Your task to perform on an android device: Search for flights from Boston to Sydney Image 0: 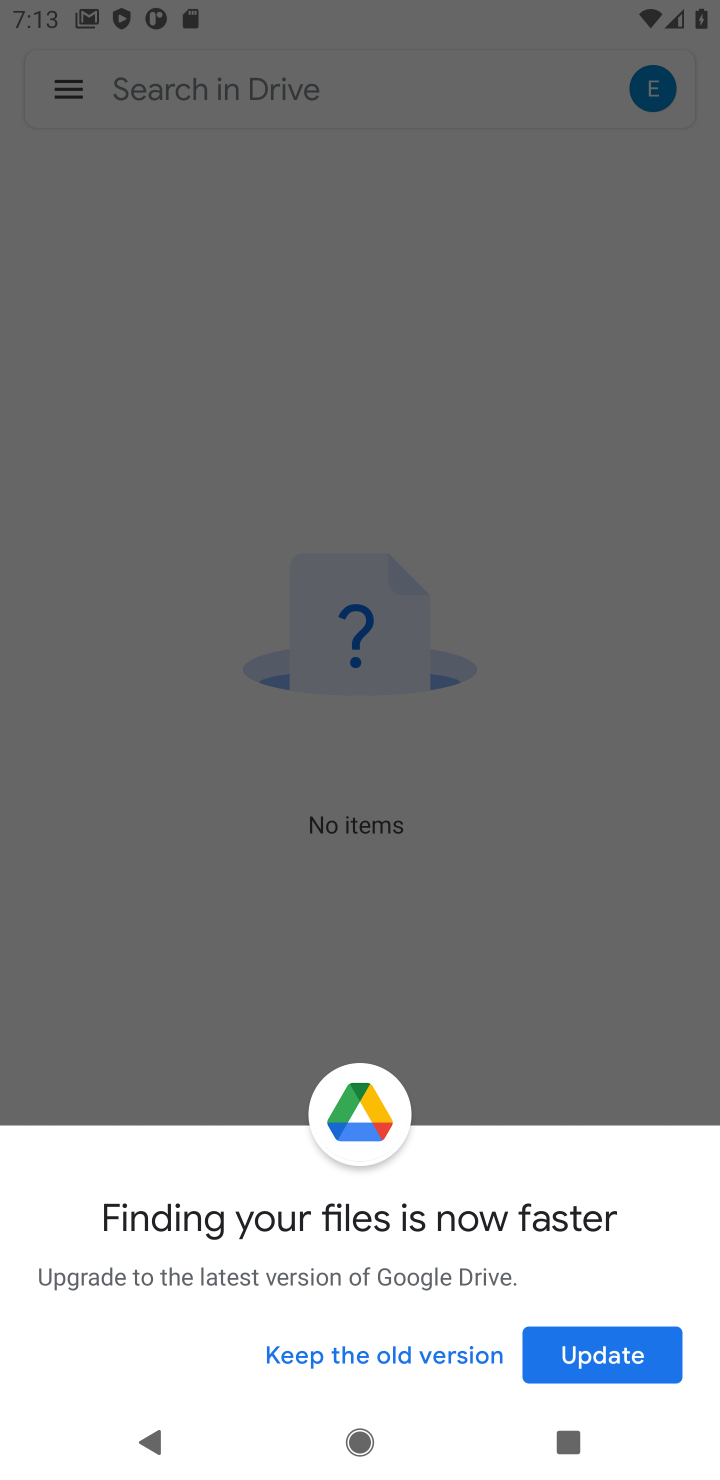
Step 0: click (284, 791)
Your task to perform on an android device: Search for flights from Boston to Sydney Image 1: 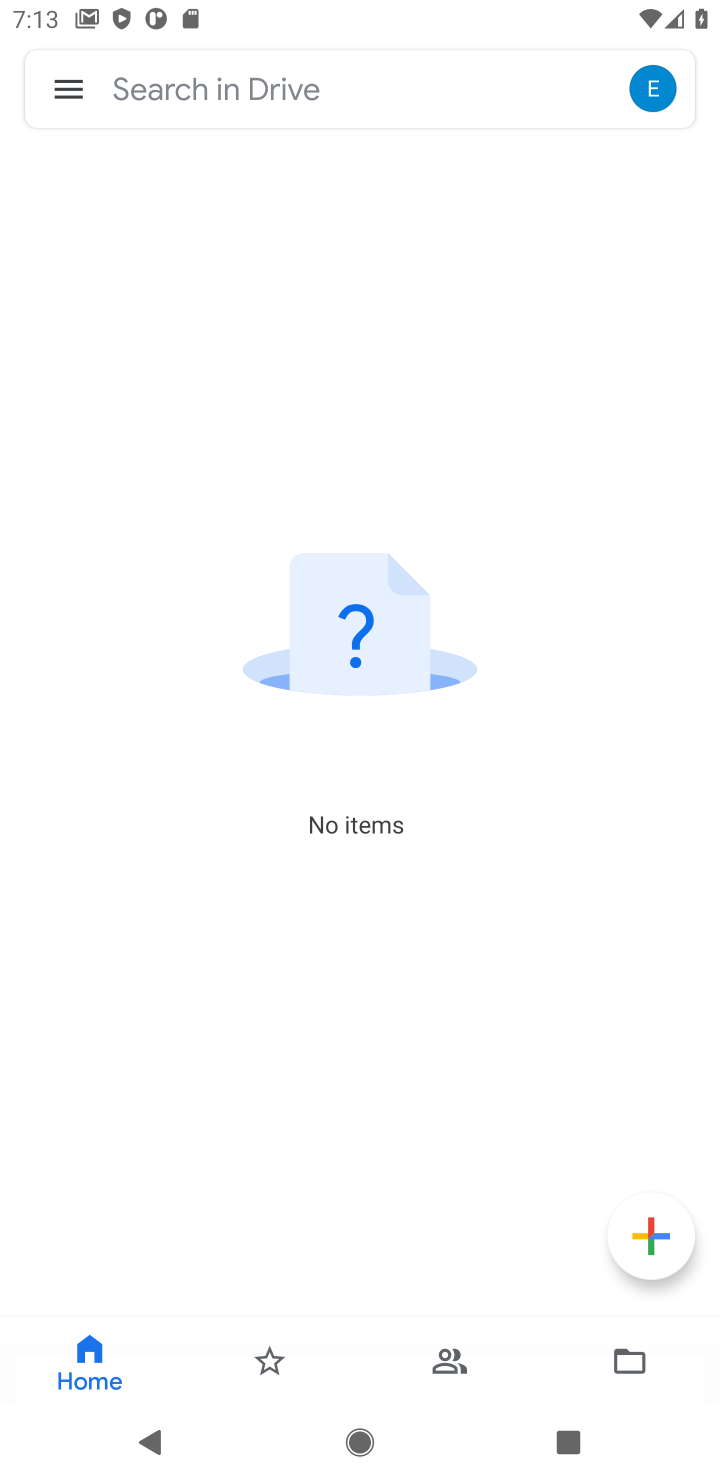
Step 1: press home button
Your task to perform on an android device: Search for flights from Boston to Sydney Image 2: 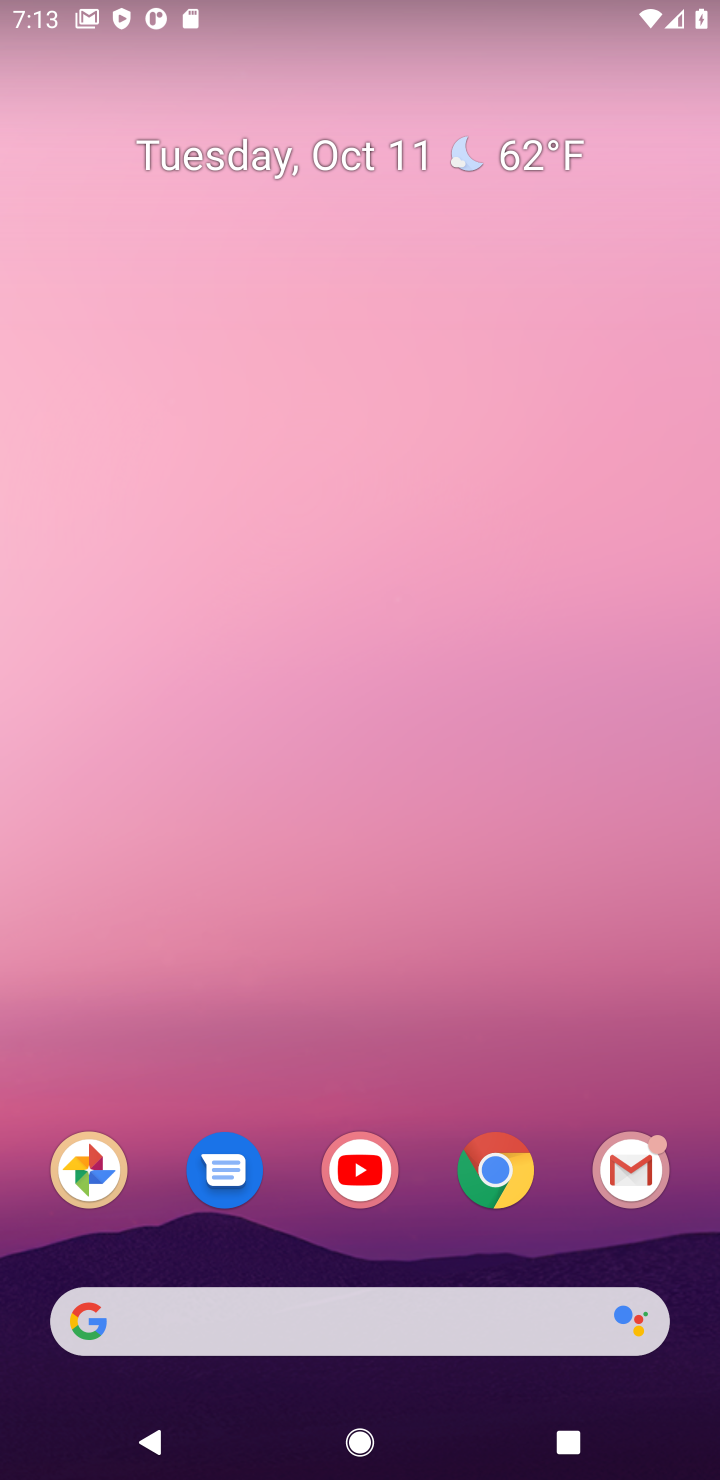
Step 2: drag from (332, 1259) to (342, 3)
Your task to perform on an android device: Search for flights from Boston to Sydney Image 3: 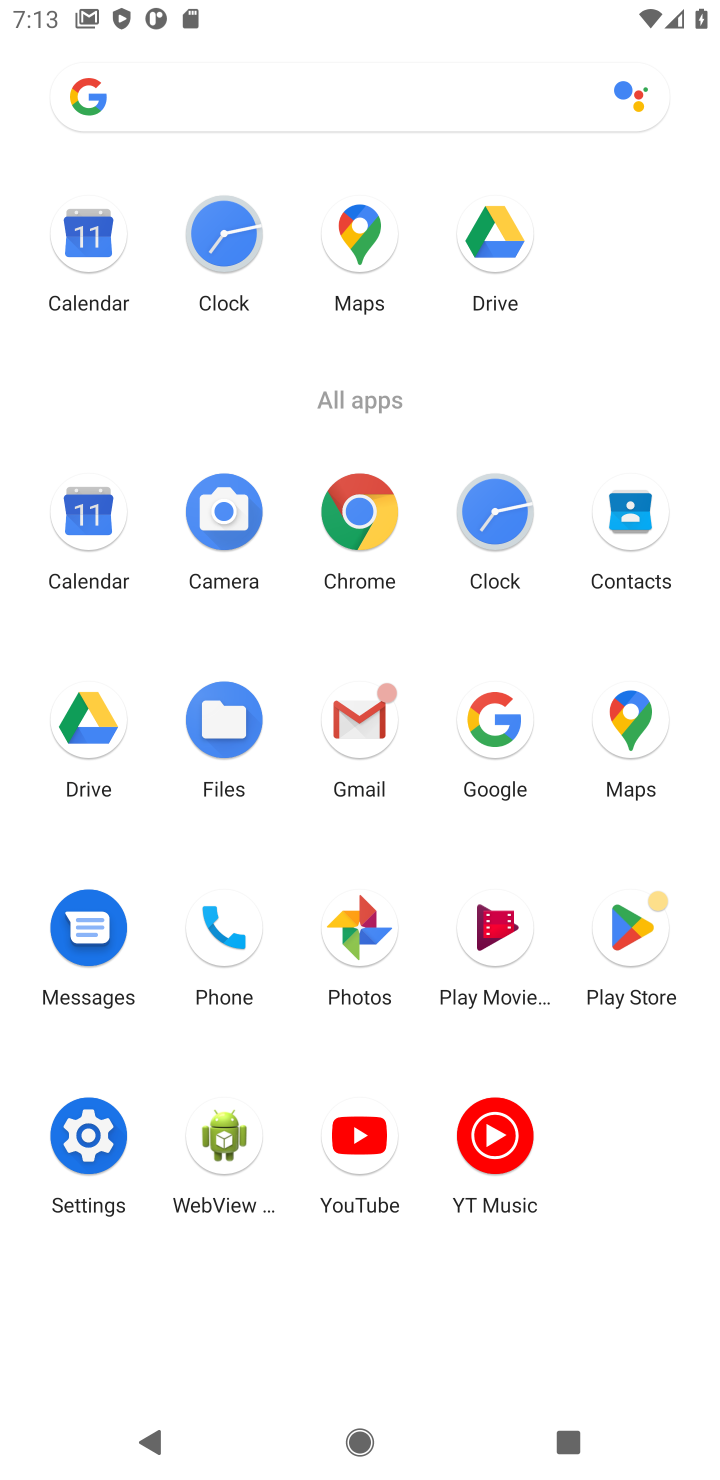
Step 3: click (498, 705)
Your task to perform on an android device: Search for flights from Boston to Sydney Image 4: 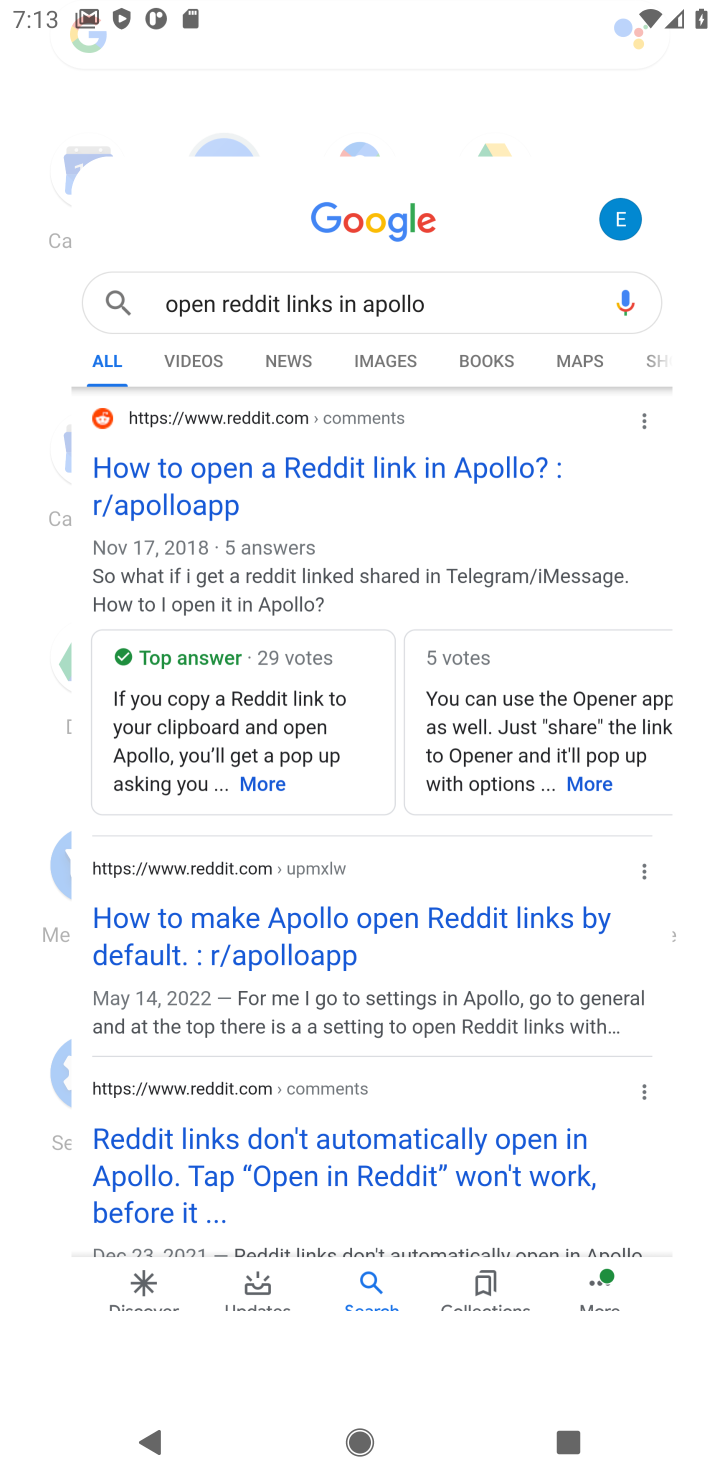
Step 4: click (409, 291)
Your task to perform on an android device: Search for flights from Boston to Sydney Image 5: 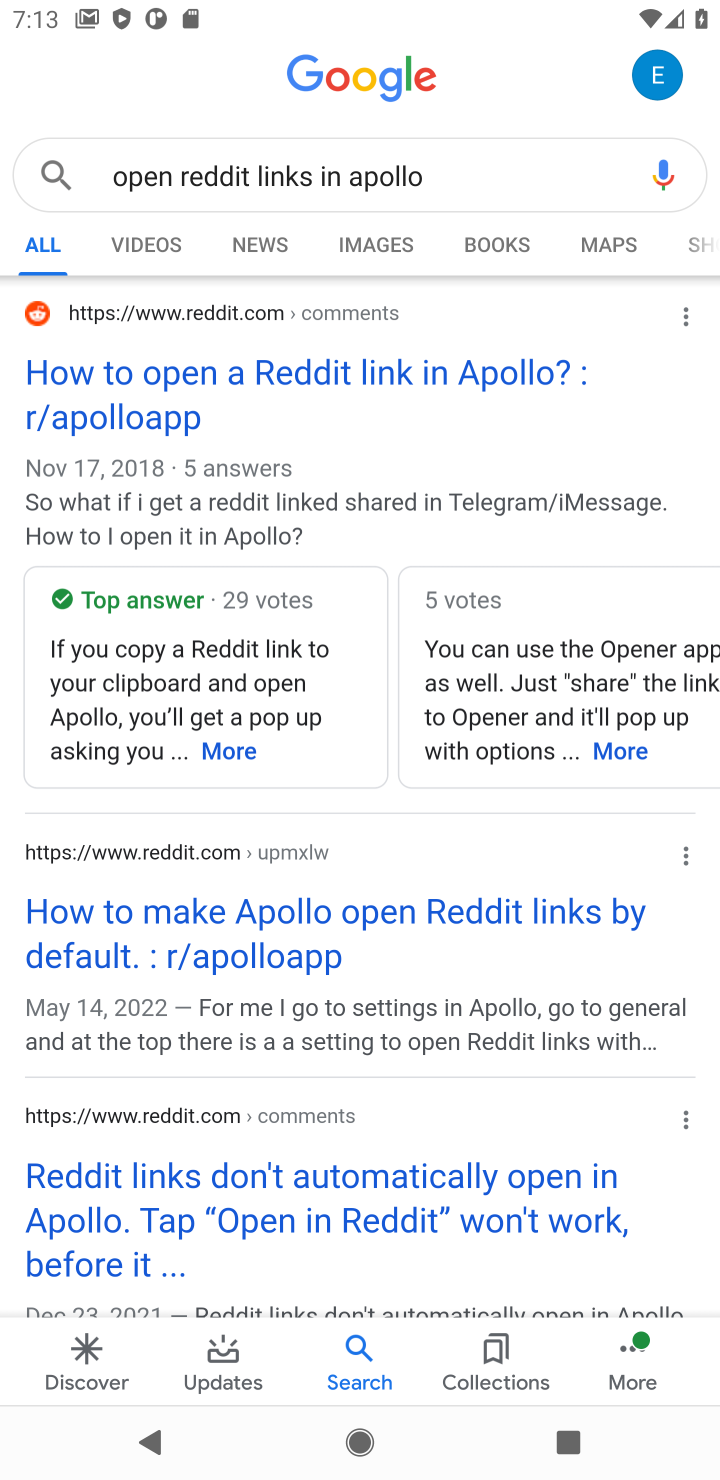
Step 5: click (371, 152)
Your task to perform on an android device: Search for flights from Boston to Sydney Image 6: 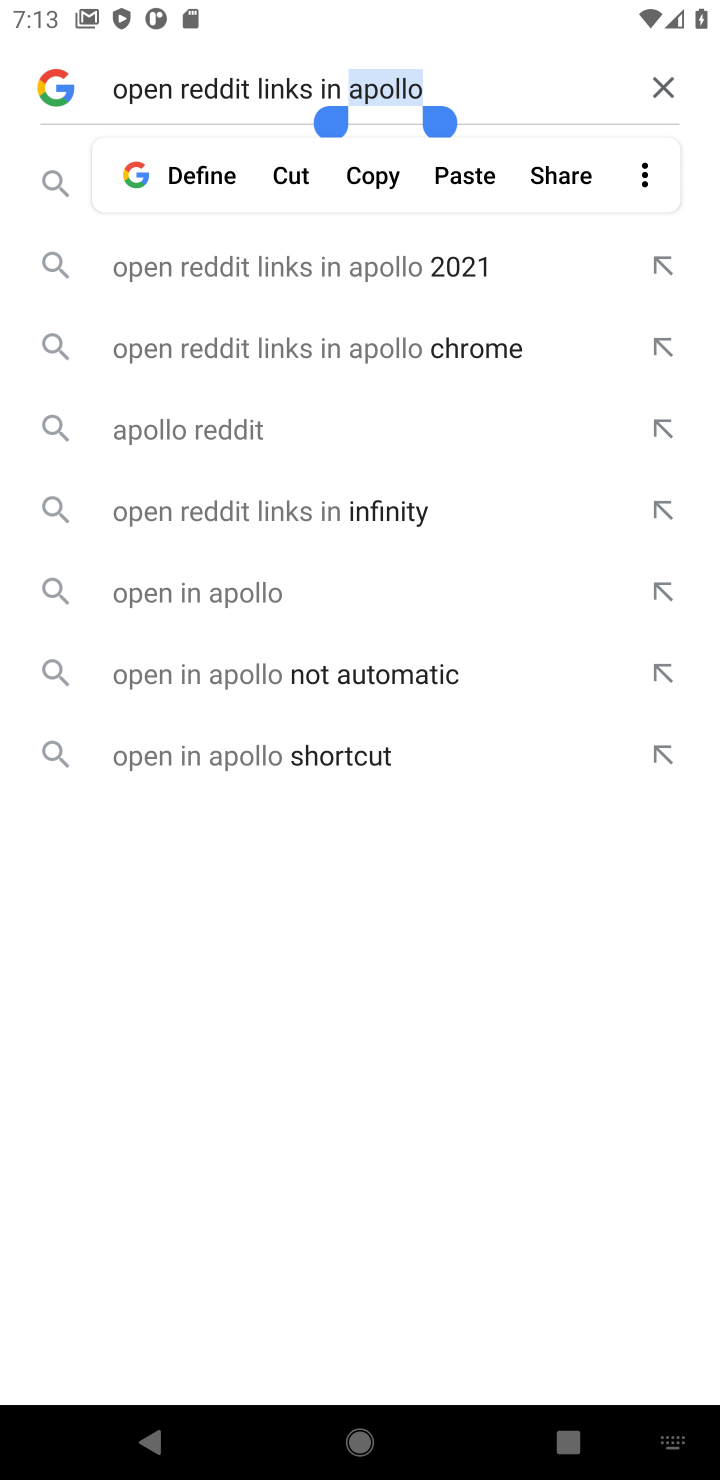
Step 6: click (653, 80)
Your task to perform on an android device: Search for flights from Boston to Sydney Image 7: 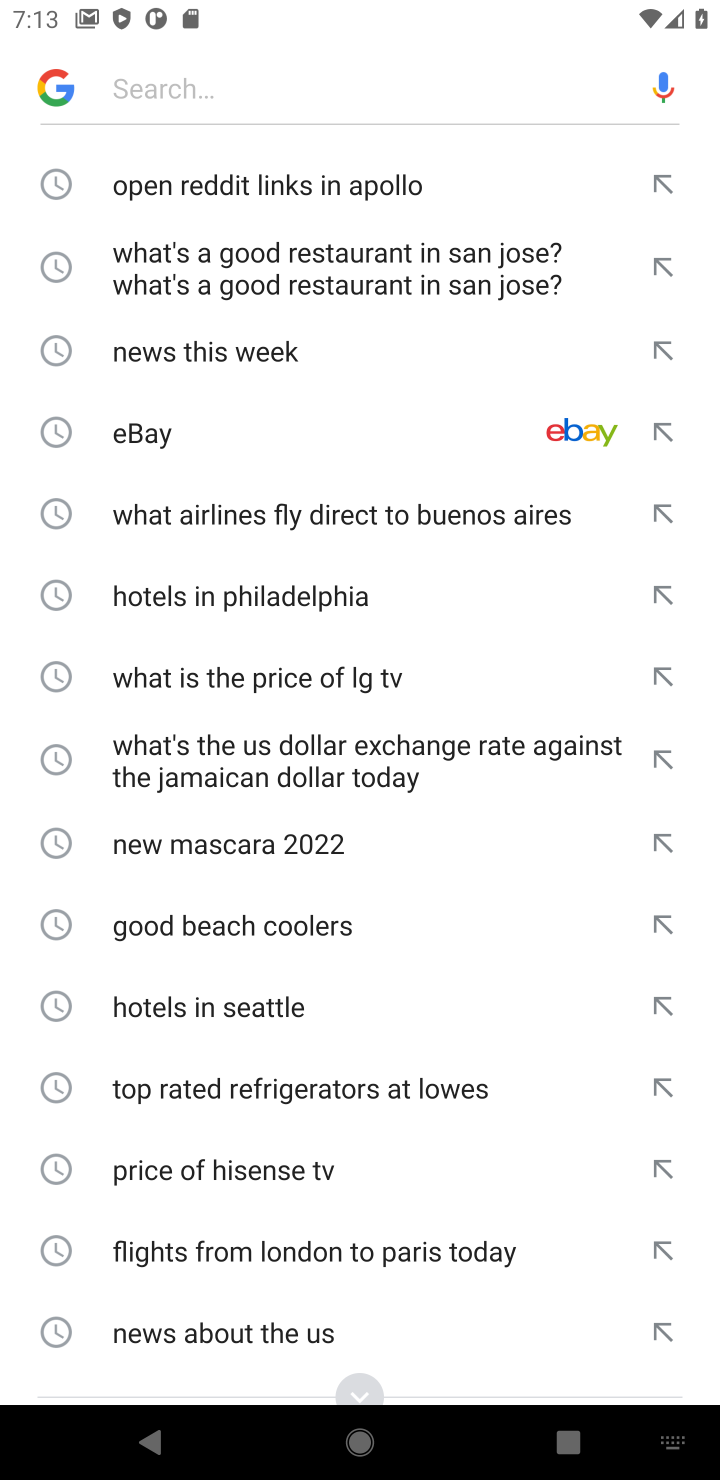
Step 7: click (332, 93)
Your task to perform on an android device: Search for flights from Boston to Sydney Image 8: 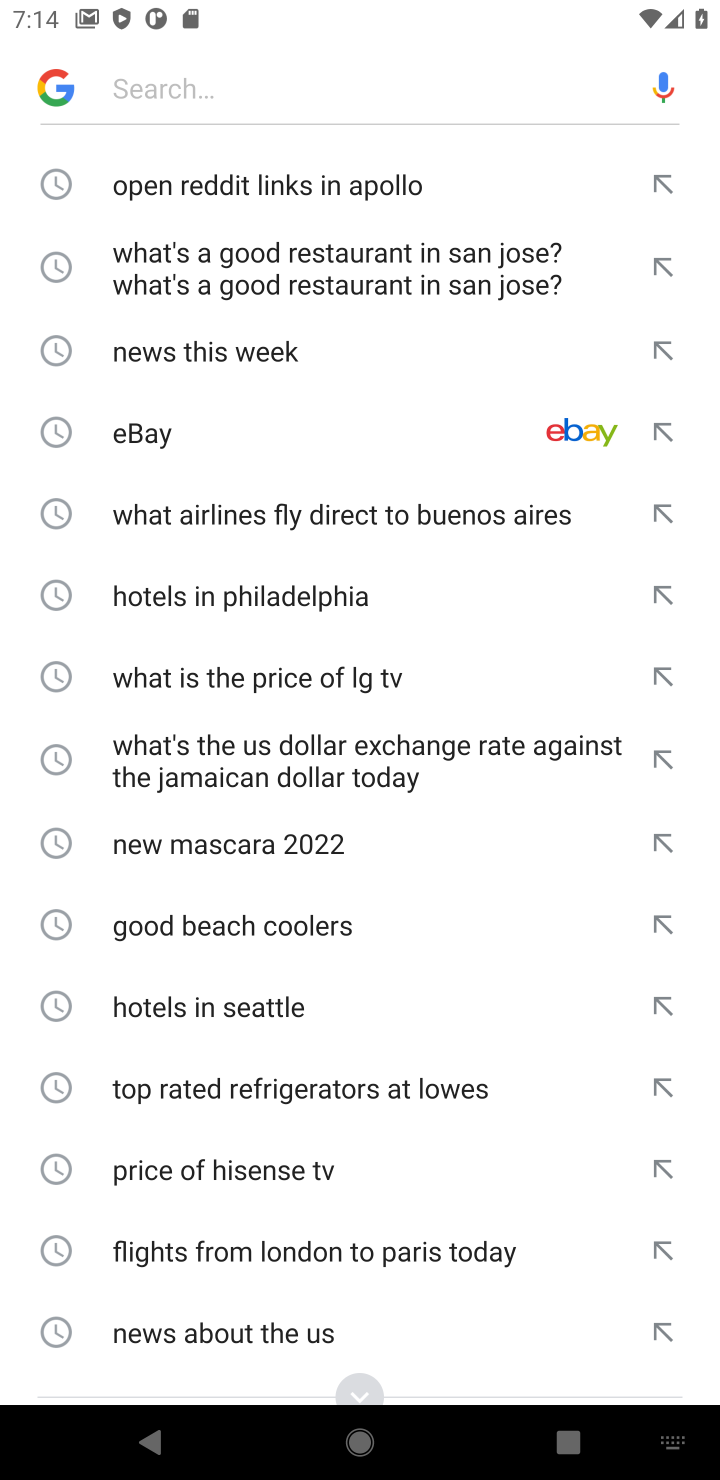
Step 8: type "Search for flights from Boston to Sydney "
Your task to perform on an android device: Search for flights from Boston to Sydney Image 9: 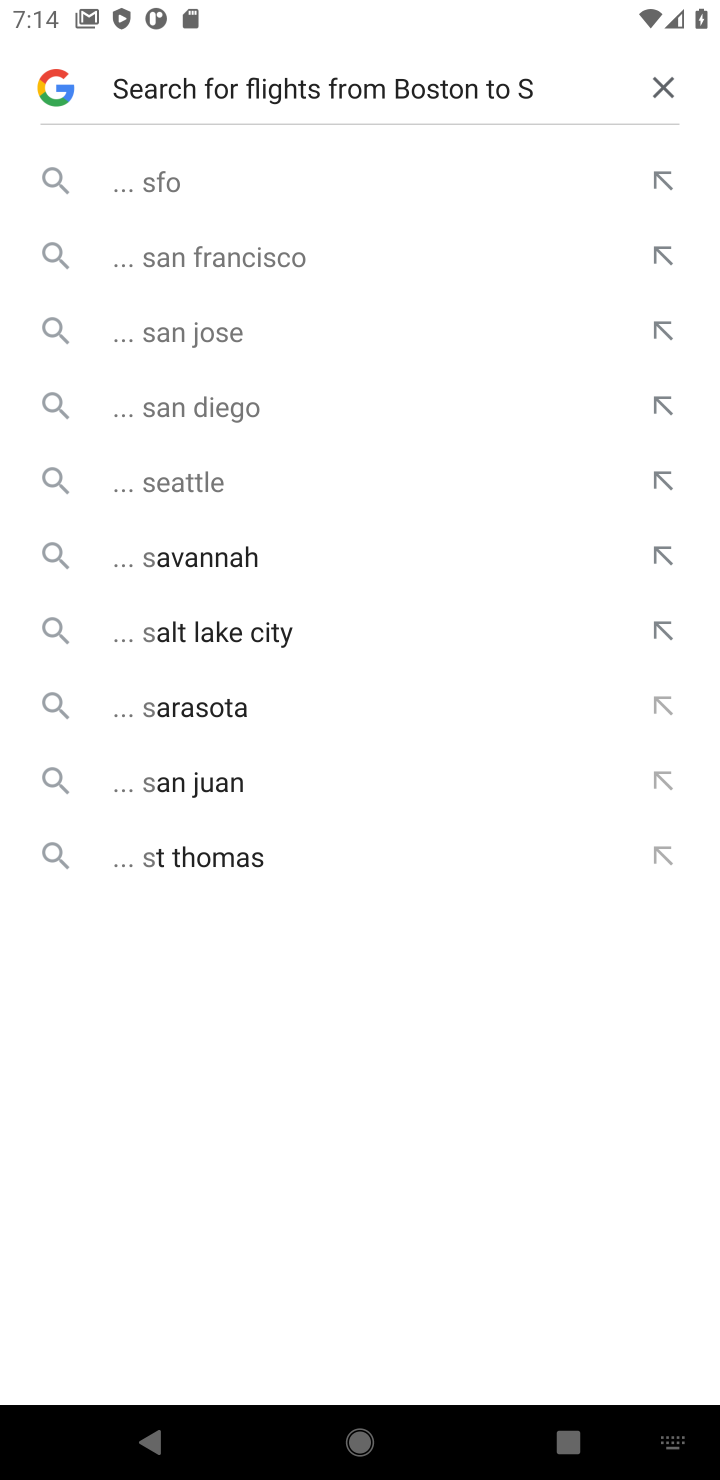
Step 9: click (668, 84)
Your task to perform on an android device: Search for flights from Boston to Sydney Image 10: 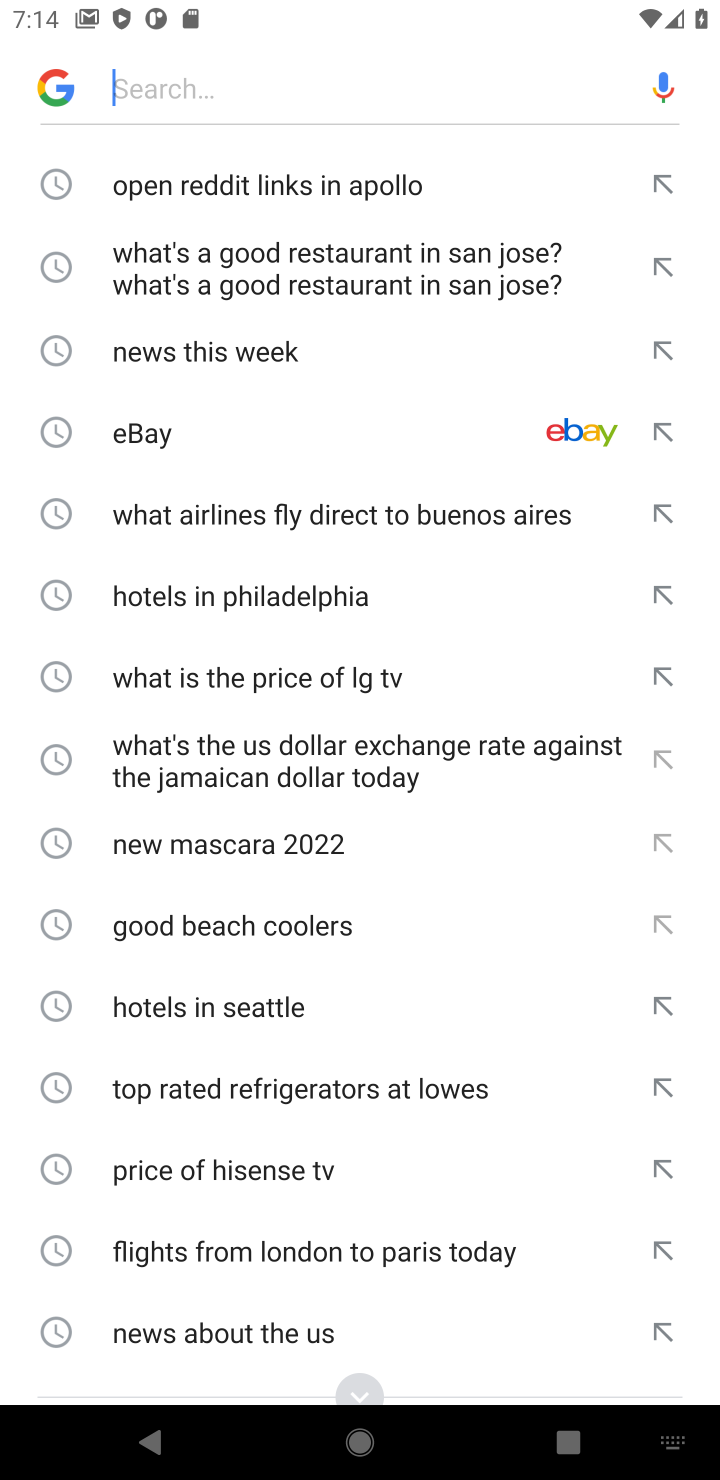
Step 10: click (227, 79)
Your task to perform on an android device: Search for flights from Boston to Sydney Image 11: 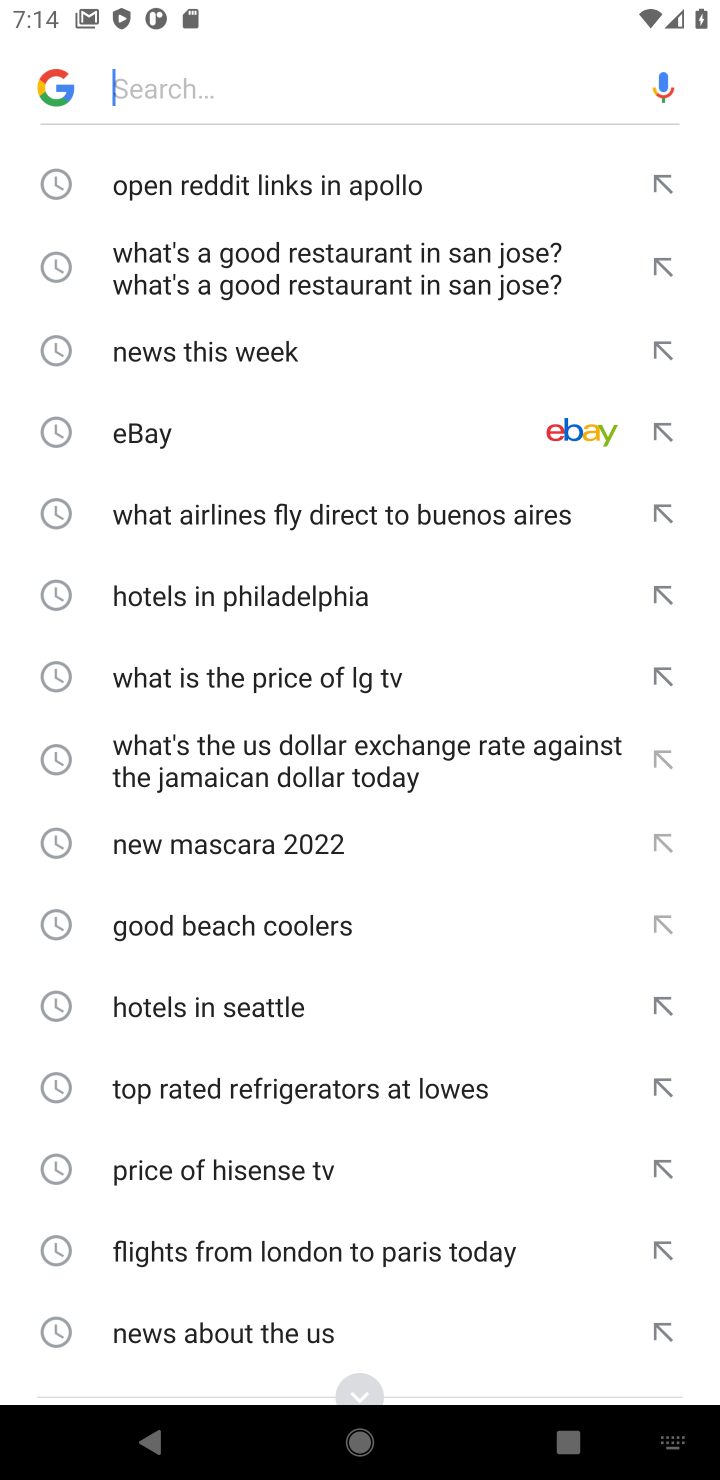
Step 11: type "Search for flights from Boston to Sydney "
Your task to perform on an android device: Search for flights from Boston to Sydney Image 12: 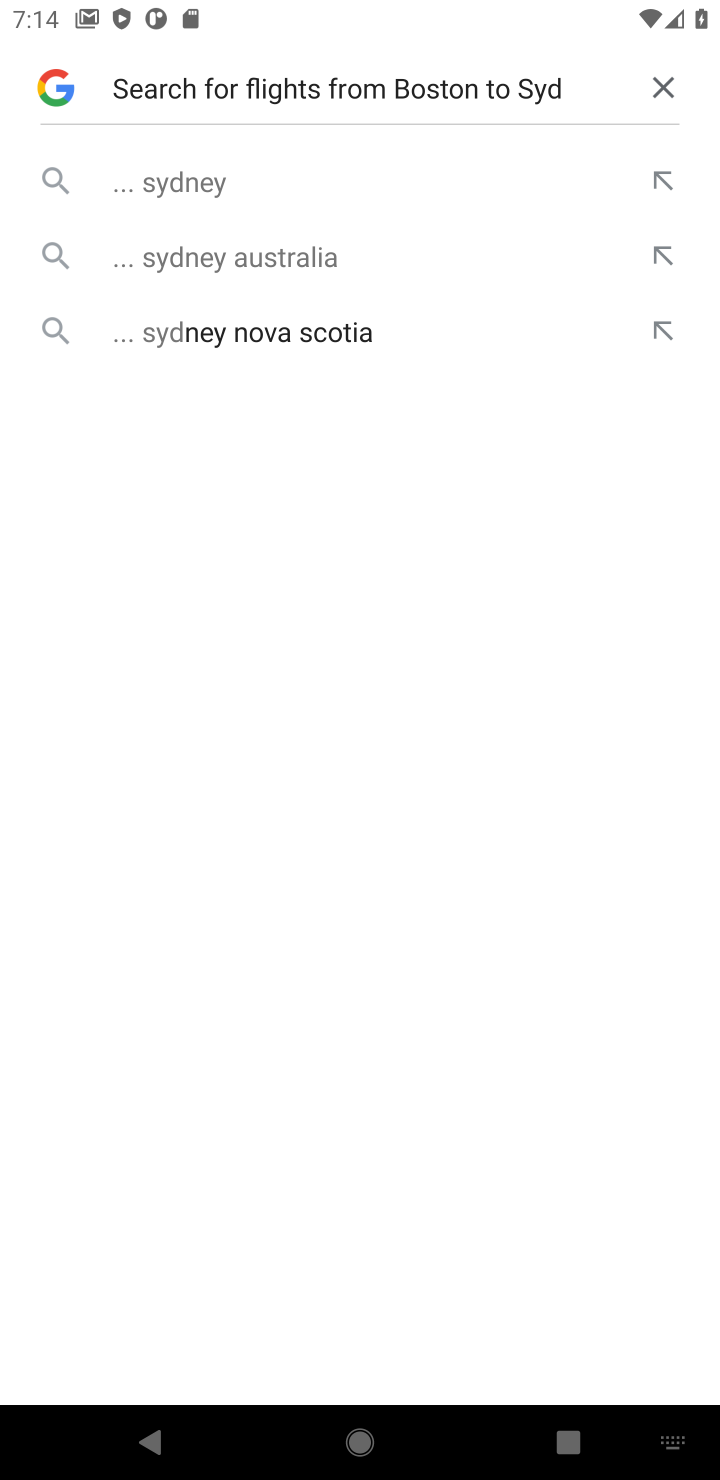
Step 12: click (183, 186)
Your task to perform on an android device: Search for flights from Boston to Sydney Image 13: 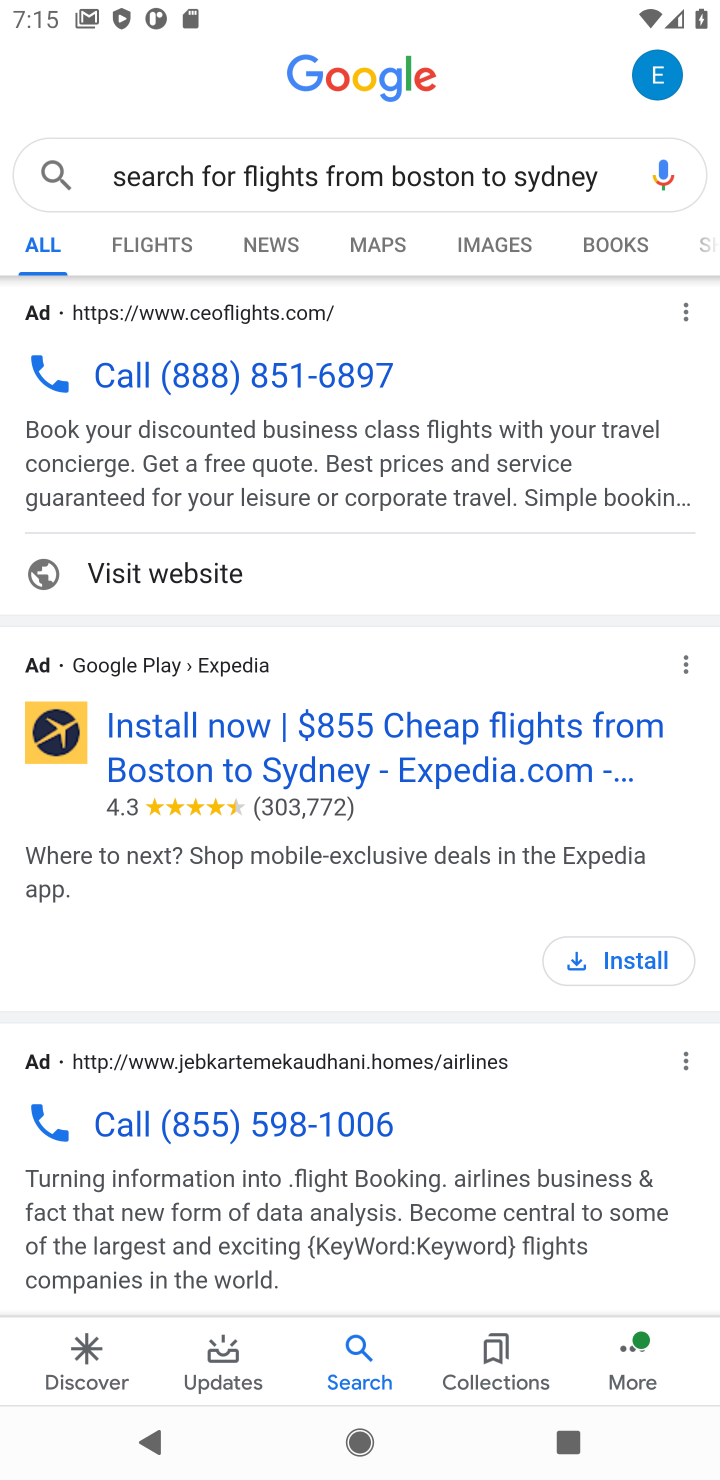
Step 13: drag from (511, 1166) to (614, 267)
Your task to perform on an android device: Search for flights from Boston to Sydney Image 14: 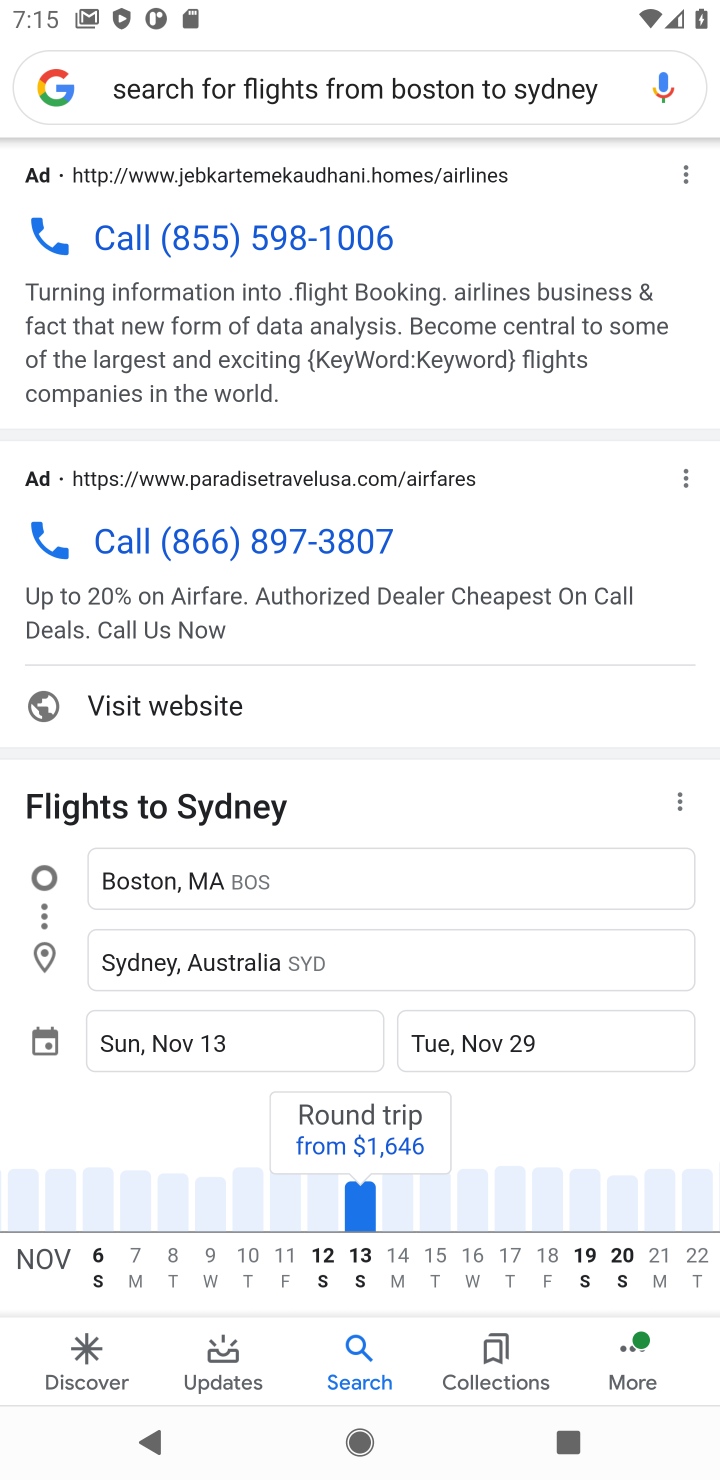
Step 14: drag from (356, 1068) to (433, 358)
Your task to perform on an android device: Search for flights from Boston to Sydney Image 15: 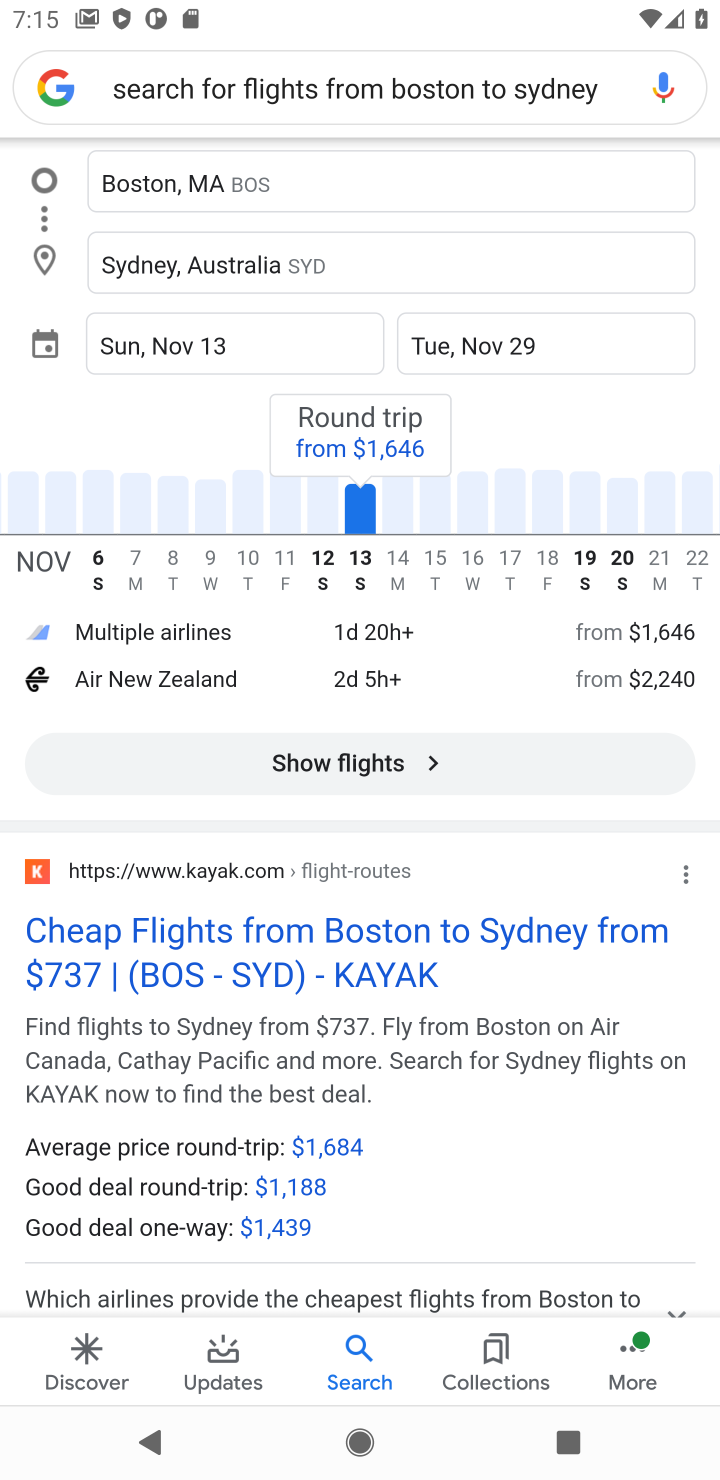
Step 15: click (292, 933)
Your task to perform on an android device: Search for flights from Boston to Sydney Image 16: 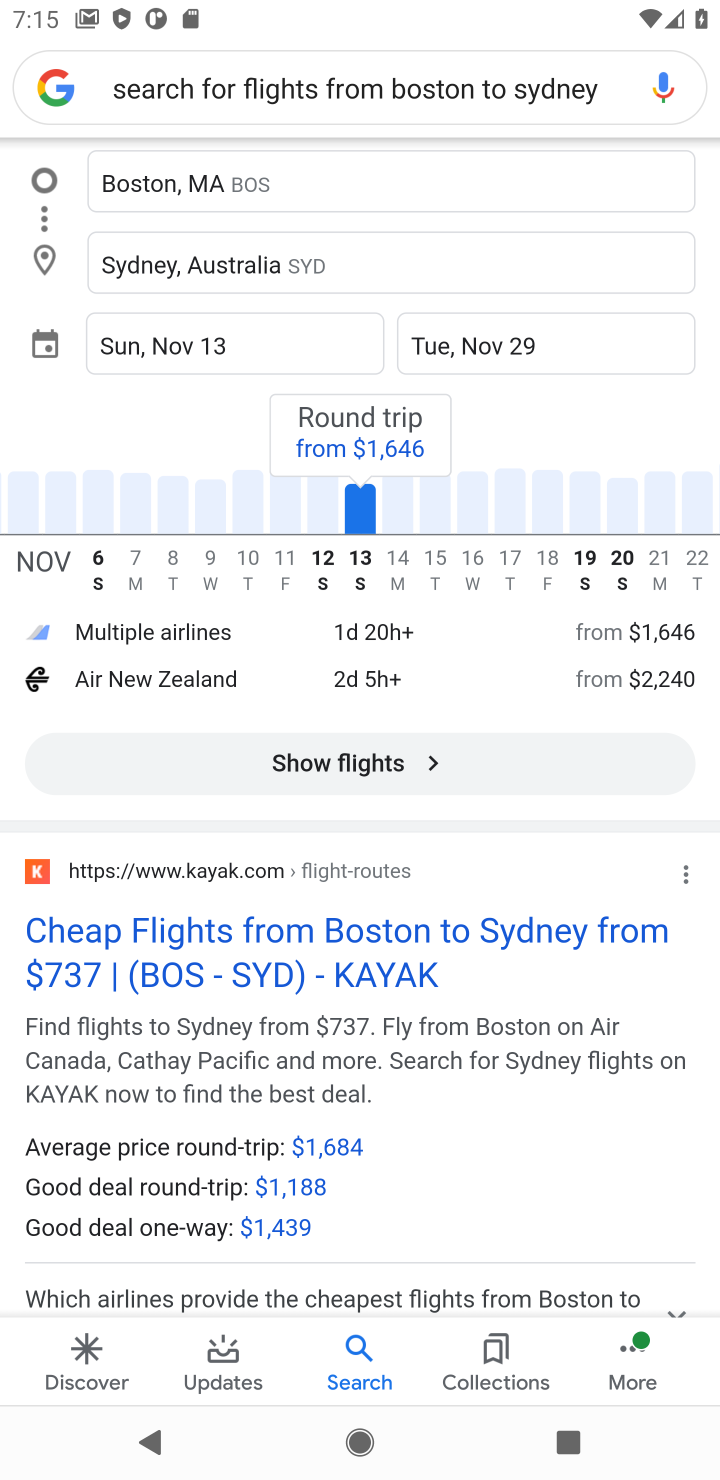
Step 16: click (349, 923)
Your task to perform on an android device: Search for flights from Boston to Sydney Image 17: 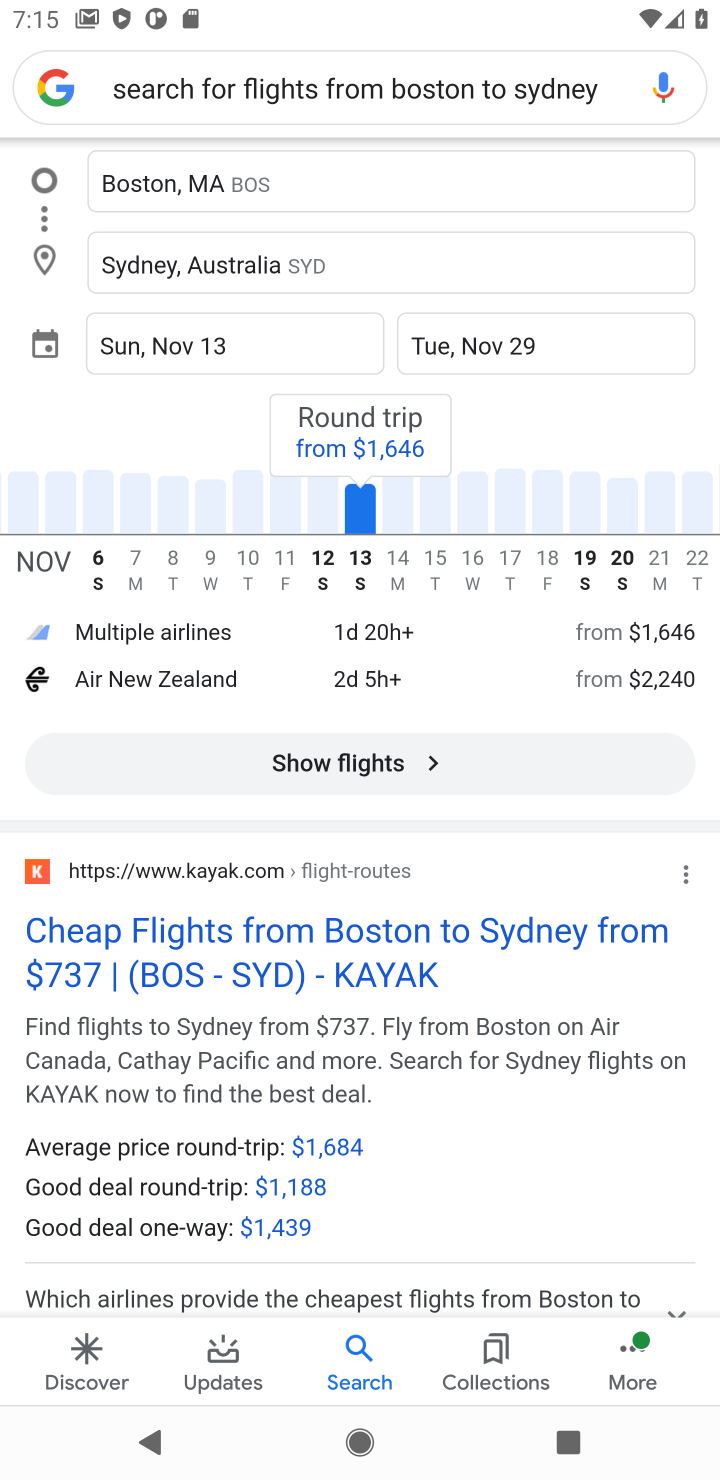
Step 17: click (345, 938)
Your task to perform on an android device: Search for flights from Boston to Sydney Image 18: 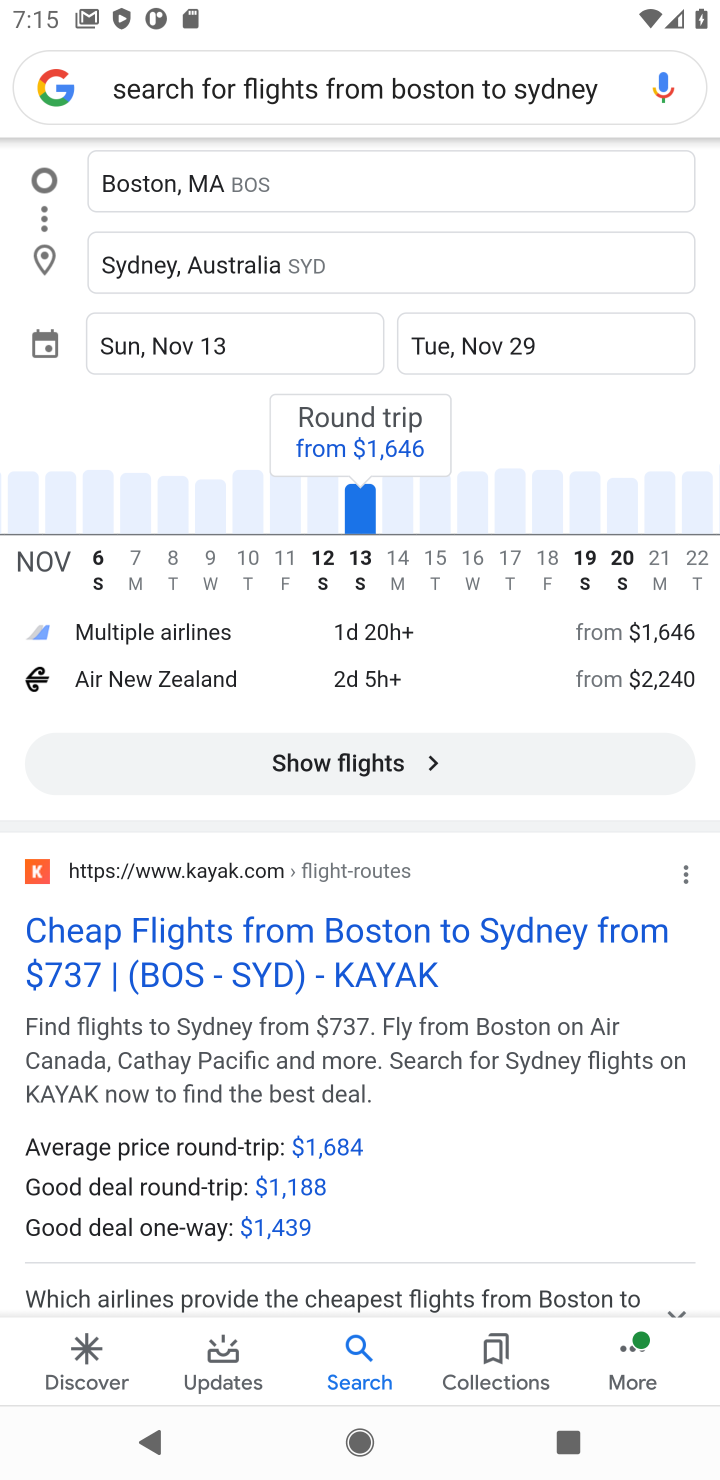
Step 18: click (139, 938)
Your task to perform on an android device: Search for flights from Boston to Sydney Image 19: 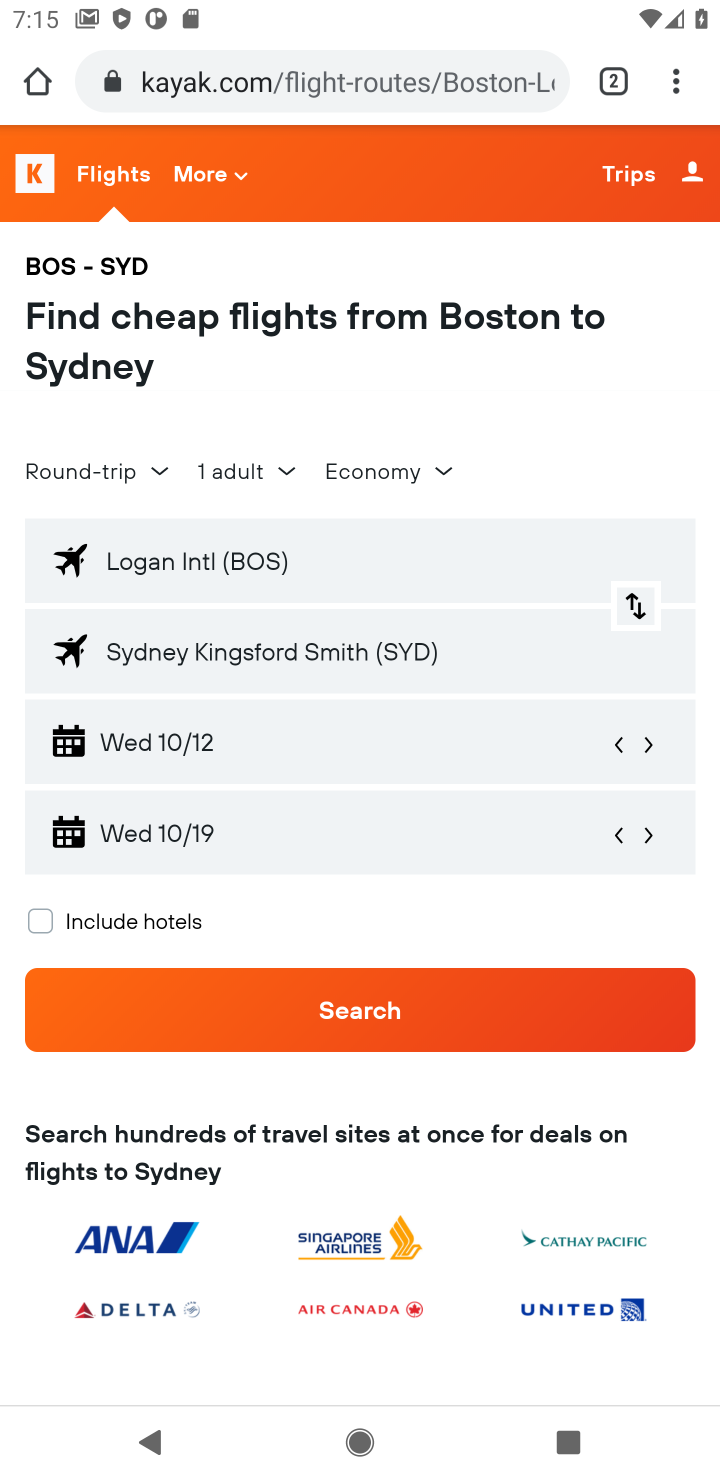
Step 19: click (327, 1029)
Your task to perform on an android device: Search for flights from Boston to Sydney Image 20: 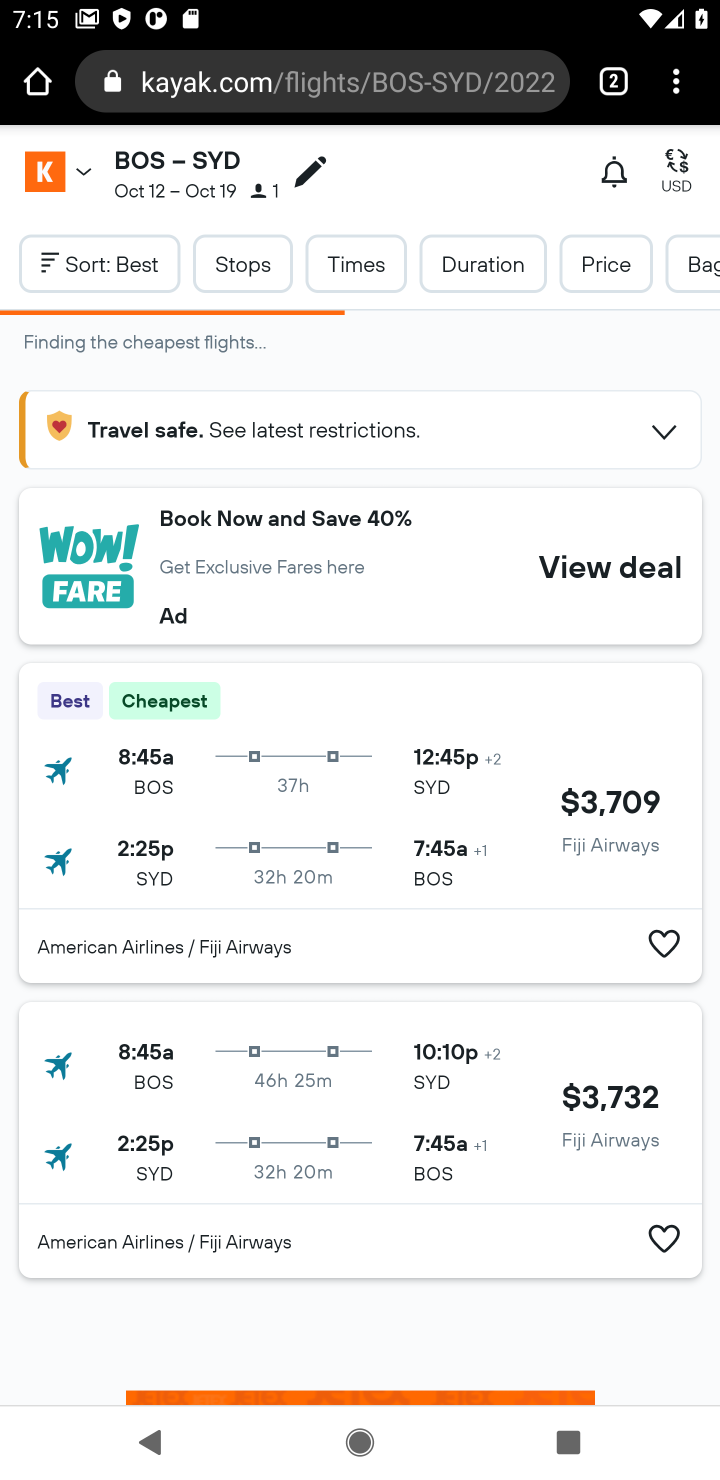
Step 20: task complete